Your task to perform on an android device: turn on showing notifications on the lock screen Image 0: 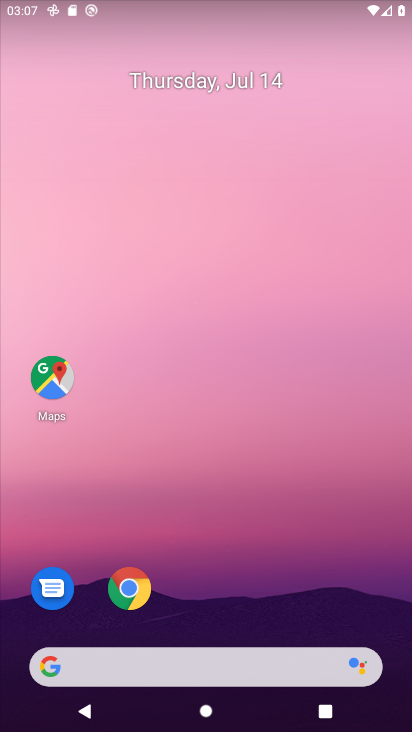
Step 0: drag from (250, 629) to (200, 181)
Your task to perform on an android device: turn on showing notifications on the lock screen Image 1: 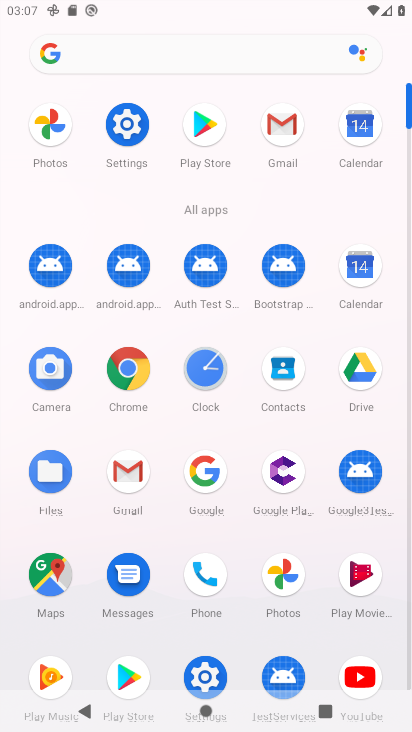
Step 1: click (138, 124)
Your task to perform on an android device: turn on showing notifications on the lock screen Image 2: 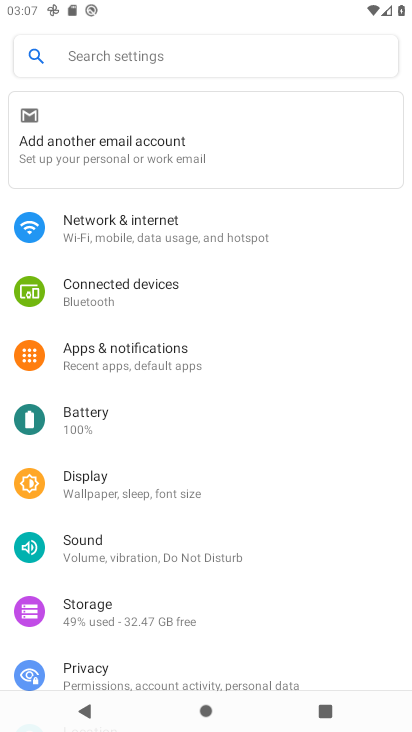
Step 2: click (160, 350)
Your task to perform on an android device: turn on showing notifications on the lock screen Image 3: 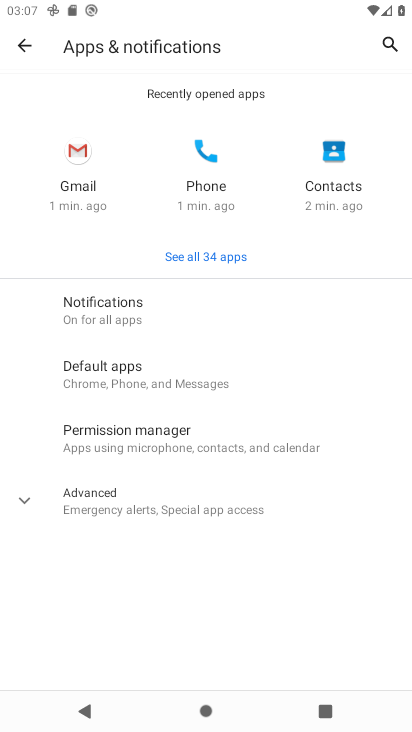
Step 3: click (193, 317)
Your task to perform on an android device: turn on showing notifications on the lock screen Image 4: 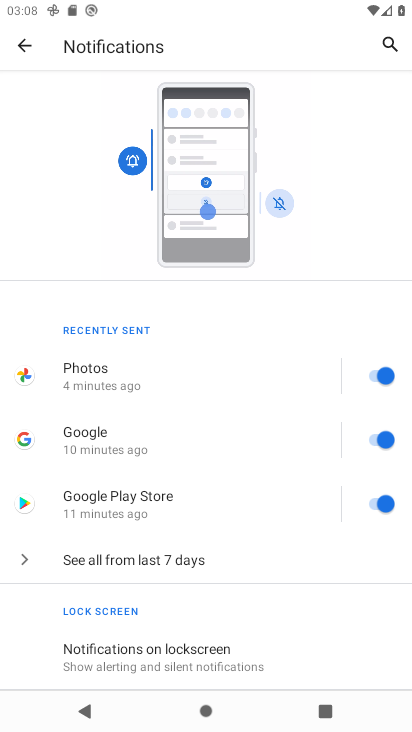
Step 4: click (237, 656)
Your task to perform on an android device: turn on showing notifications on the lock screen Image 5: 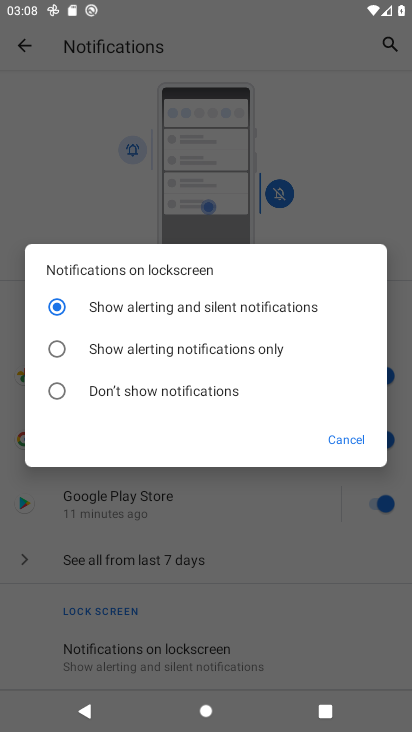
Step 5: task complete